Your task to perform on an android device: Go to accessibility settings Image 0: 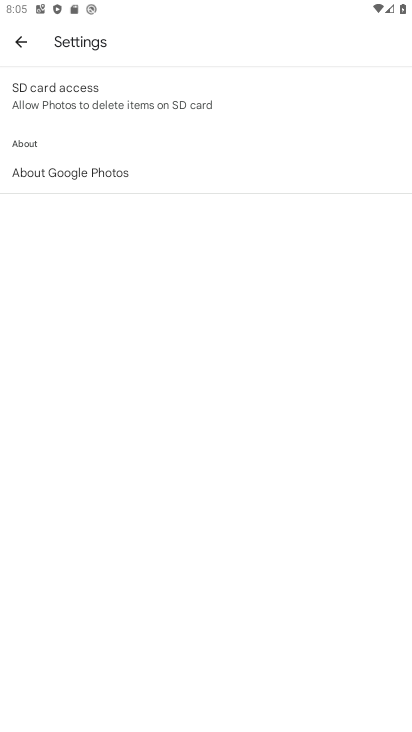
Step 0: press home button
Your task to perform on an android device: Go to accessibility settings Image 1: 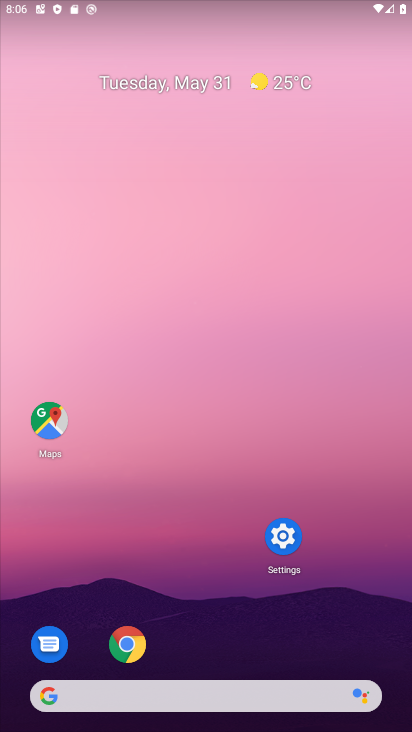
Step 1: click (284, 548)
Your task to perform on an android device: Go to accessibility settings Image 2: 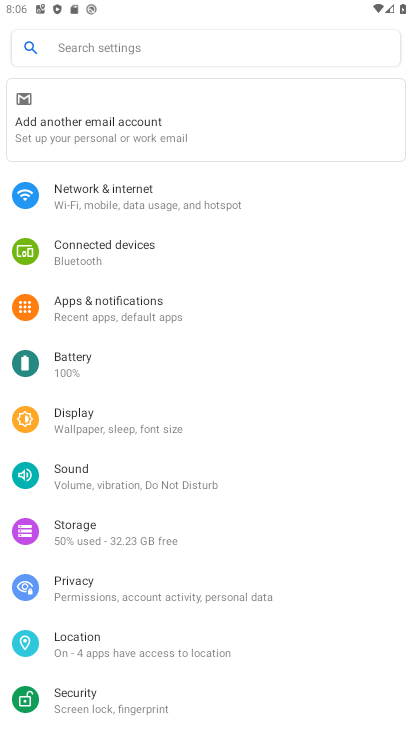
Step 2: click (119, 56)
Your task to perform on an android device: Go to accessibility settings Image 3: 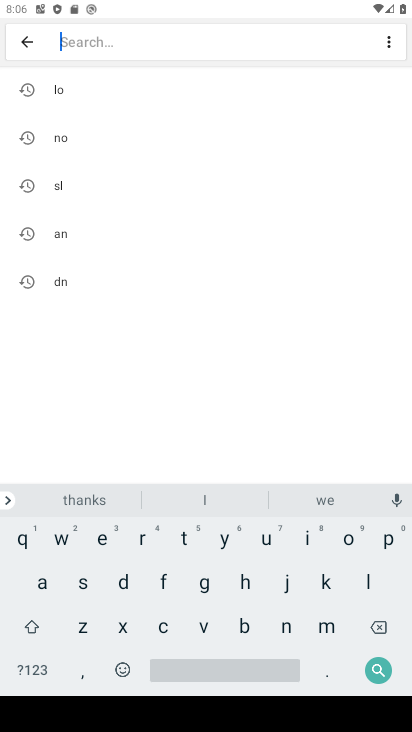
Step 3: click (85, 48)
Your task to perform on an android device: Go to accessibility settings Image 4: 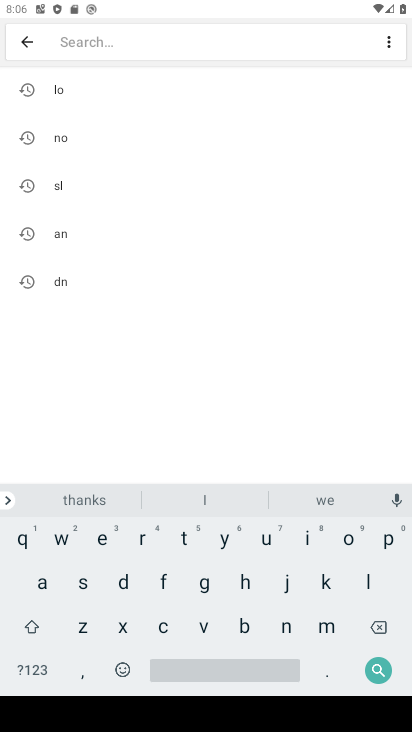
Step 4: click (40, 578)
Your task to perform on an android device: Go to accessibility settings Image 5: 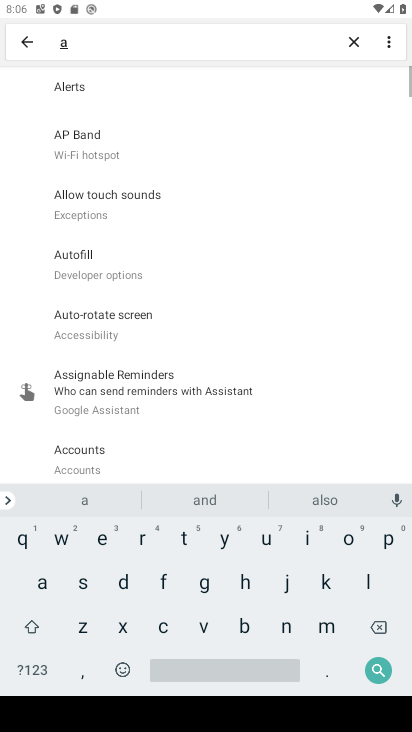
Step 5: click (157, 621)
Your task to perform on an android device: Go to accessibility settings Image 6: 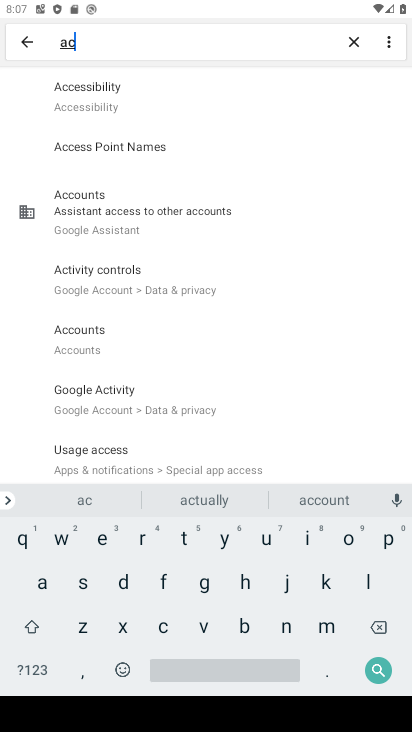
Step 6: click (125, 98)
Your task to perform on an android device: Go to accessibility settings Image 7: 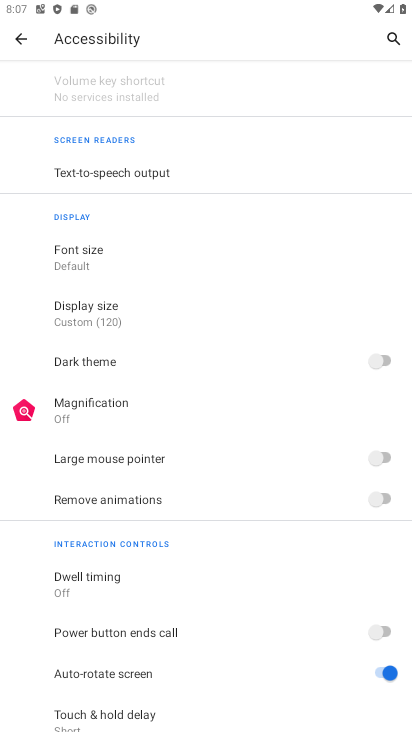
Step 7: task complete